Your task to perform on an android device: delete the emails in spam in the gmail app Image 0: 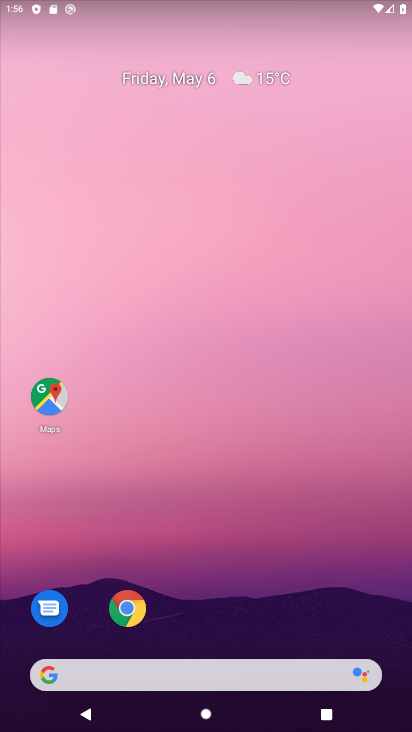
Step 0: drag from (213, 595) to (218, 120)
Your task to perform on an android device: delete the emails in spam in the gmail app Image 1: 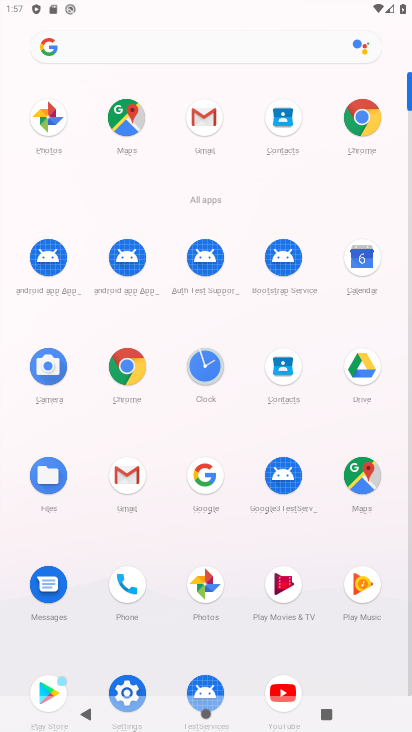
Step 1: click (200, 119)
Your task to perform on an android device: delete the emails in spam in the gmail app Image 2: 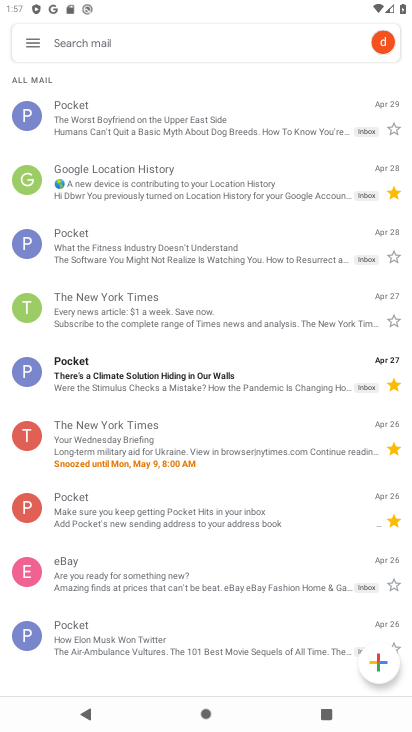
Step 2: click (34, 39)
Your task to perform on an android device: delete the emails in spam in the gmail app Image 3: 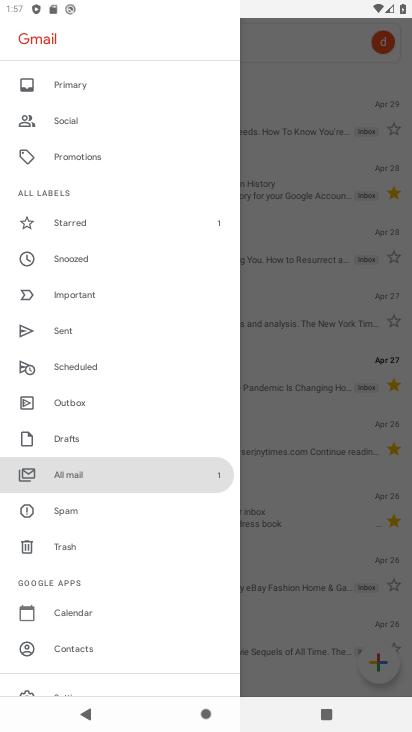
Step 3: click (78, 512)
Your task to perform on an android device: delete the emails in spam in the gmail app Image 4: 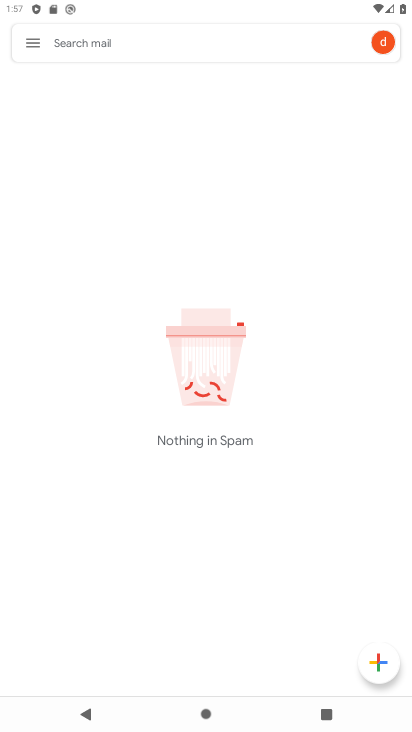
Step 4: task complete